Your task to perform on an android device: Open Google Chrome and open the bookmarks view Image 0: 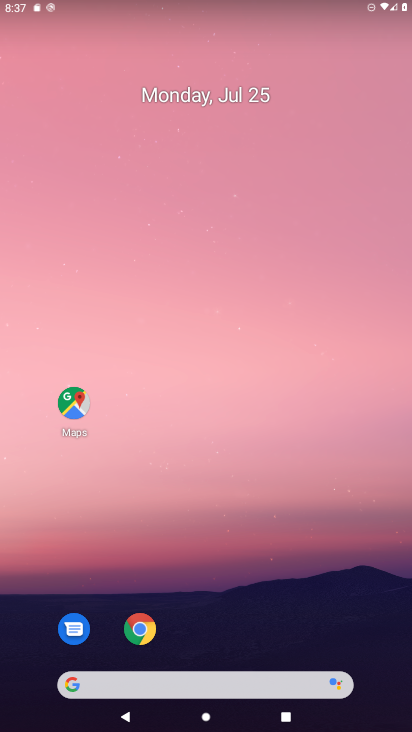
Step 0: click (146, 630)
Your task to perform on an android device: Open Google Chrome and open the bookmarks view Image 1: 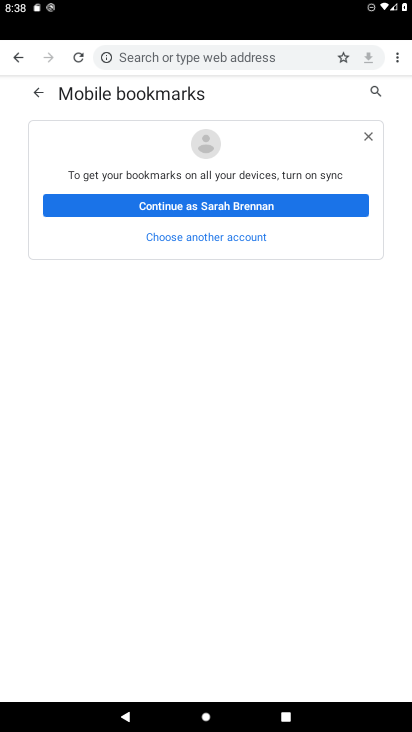
Step 1: click (231, 208)
Your task to perform on an android device: Open Google Chrome and open the bookmarks view Image 2: 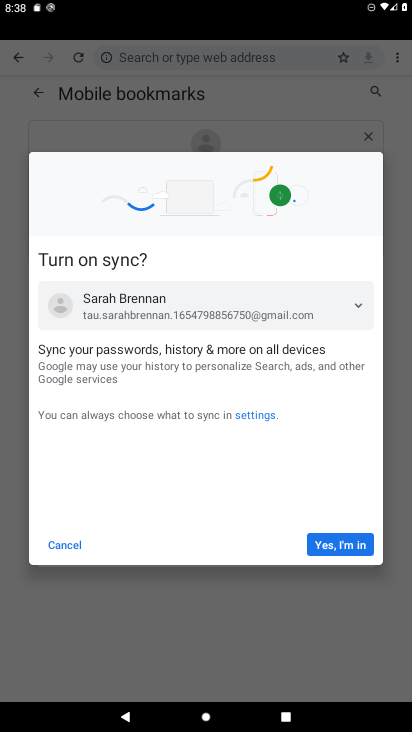
Step 2: click (355, 549)
Your task to perform on an android device: Open Google Chrome and open the bookmarks view Image 3: 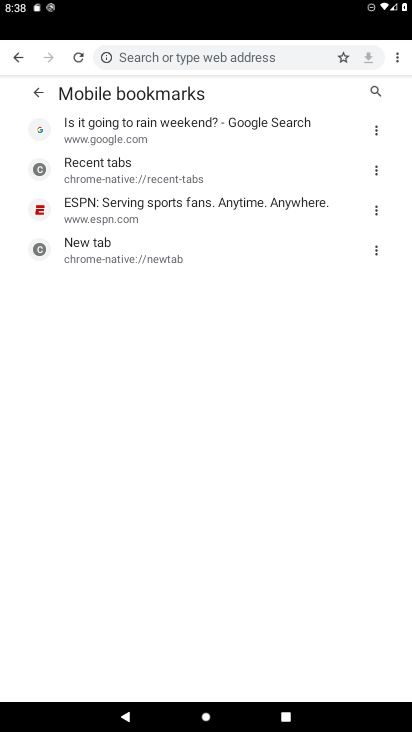
Step 3: task complete